Your task to perform on an android device: Show me recent news Image 0: 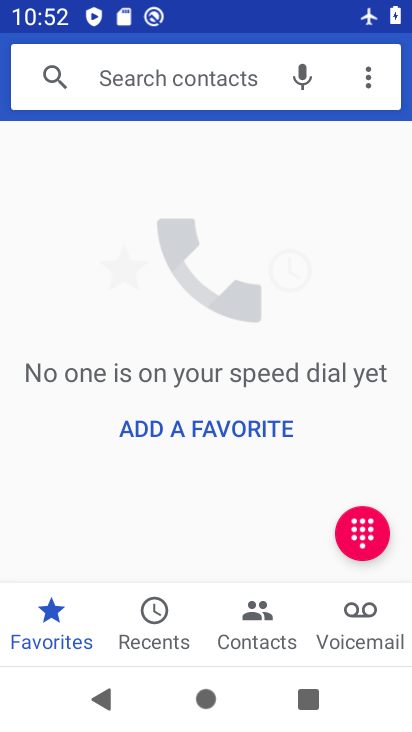
Step 0: press home button
Your task to perform on an android device: Show me recent news Image 1: 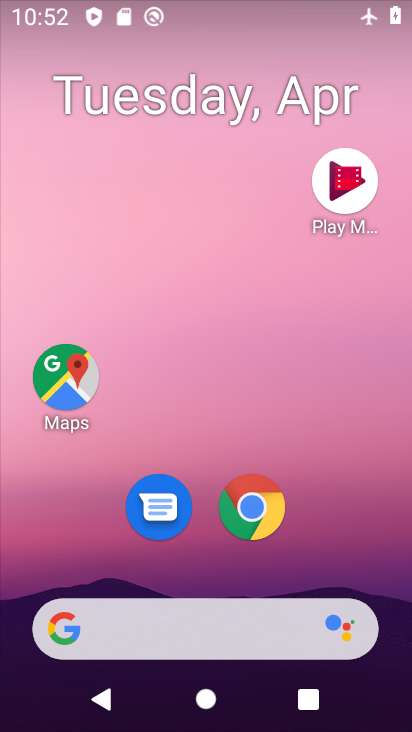
Step 1: drag from (224, 548) to (288, 159)
Your task to perform on an android device: Show me recent news Image 2: 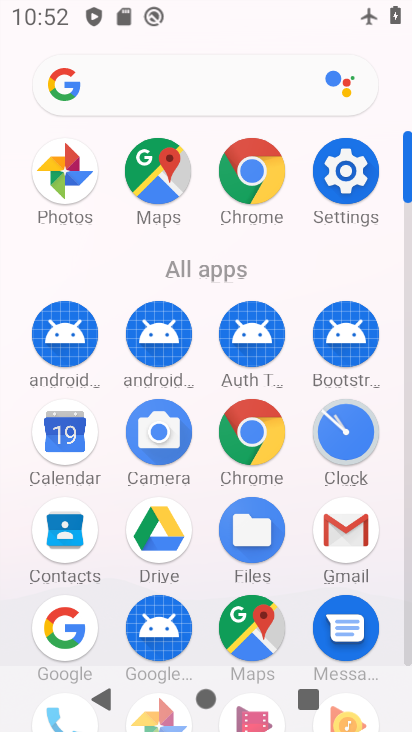
Step 2: click (249, 174)
Your task to perform on an android device: Show me recent news Image 3: 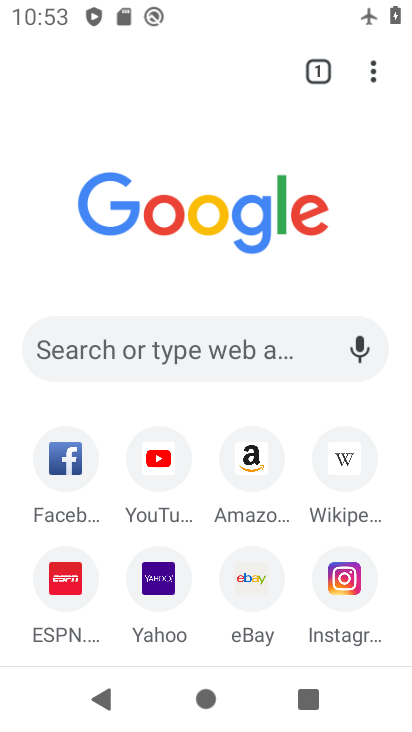
Step 3: click (146, 354)
Your task to perform on an android device: Show me recent news Image 4: 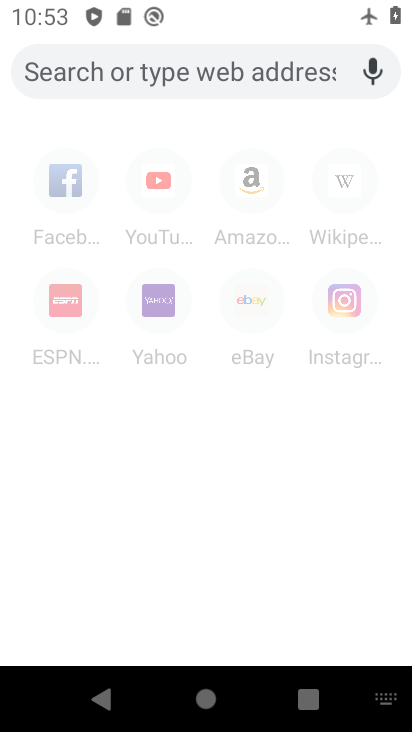
Step 4: type "recent news"
Your task to perform on an android device: Show me recent news Image 5: 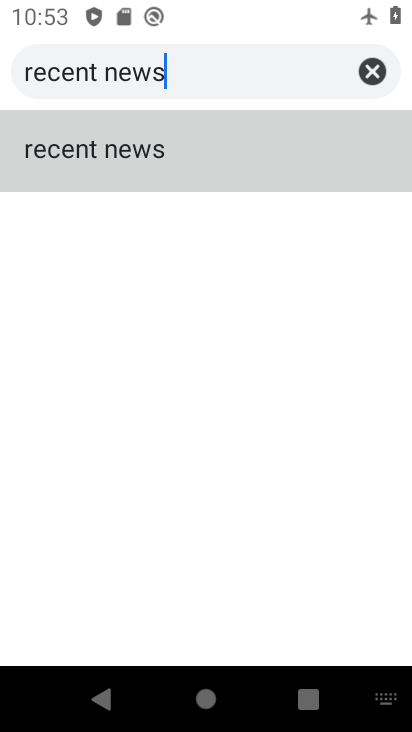
Step 5: click (237, 156)
Your task to perform on an android device: Show me recent news Image 6: 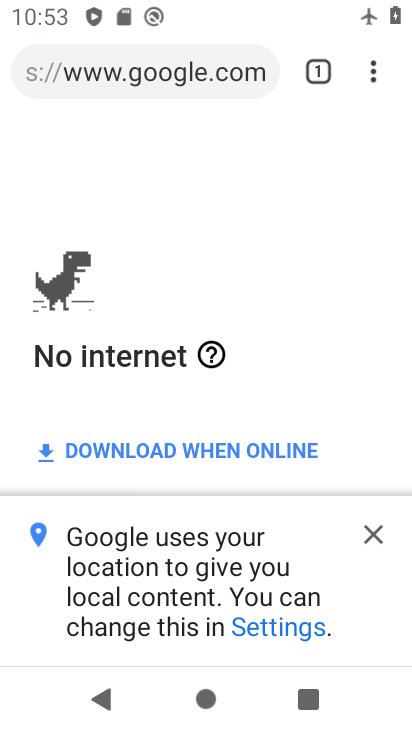
Step 6: task complete